Your task to perform on an android device: turn off notifications in google photos Image 0: 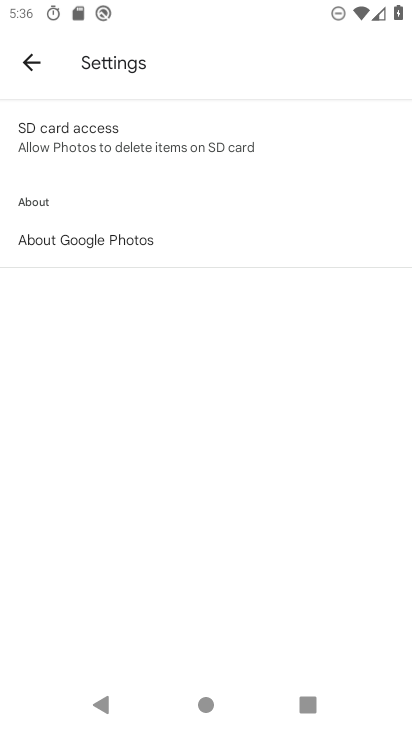
Step 0: press home button
Your task to perform on an android device: turn off notifications in google photos Image 1: 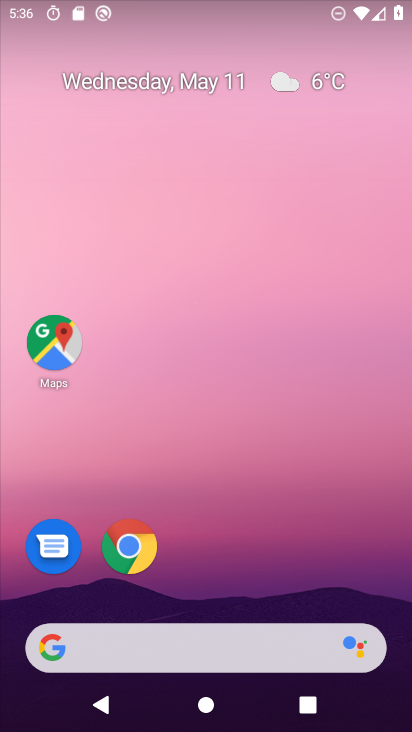
Step 1: drag from (195, 618) to (195, 337)
Your task to perform on an android device: turn off notifications in google photos Image 2: 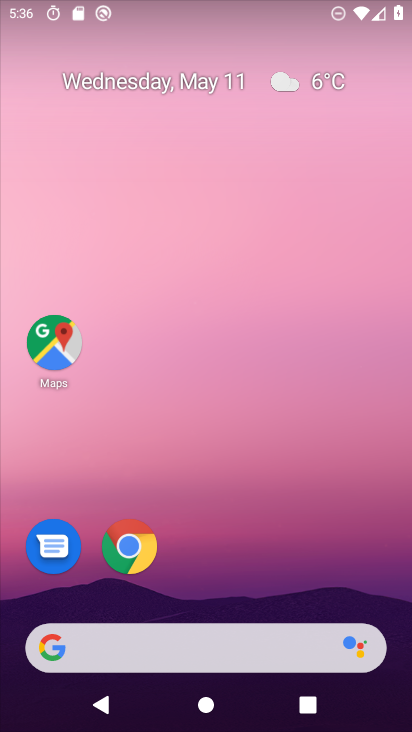
Step 2: drag from (239, 503) to (292, 171)
Your task to perform on an android device: turn off notifications in google photos Image 3: 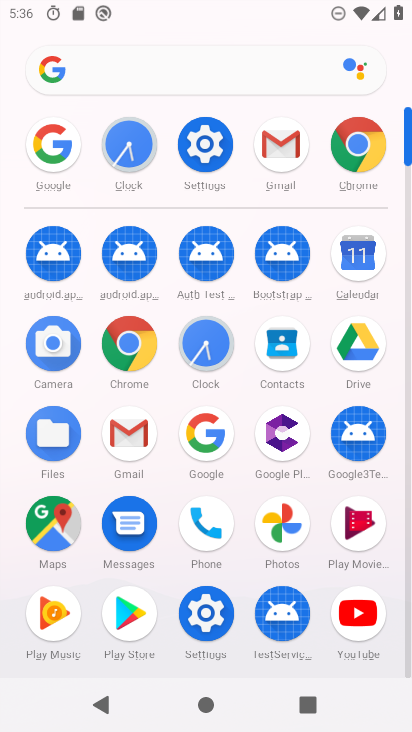
Step 3: click (304, 527)
Your task to perform on an android device: turn off notifications in google photos Image 4: 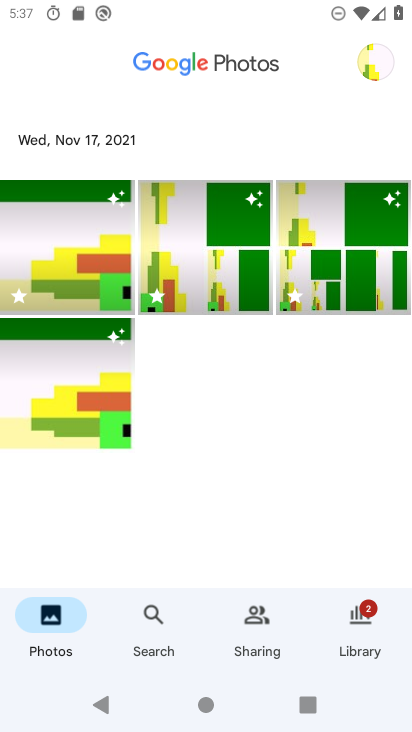
Step 4: click (362, 70)
Your task to perform on an android device: turn off notifications in google photos Image 5: 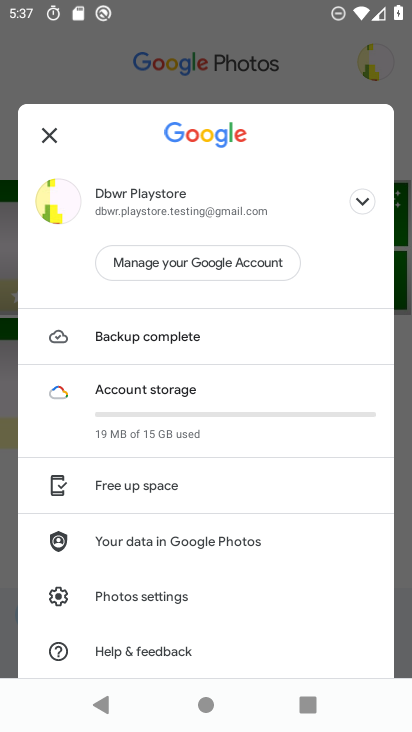
Step 5: click (151, 601)
Your task to perform on an android device: turn off notifications in google photos Image 6: 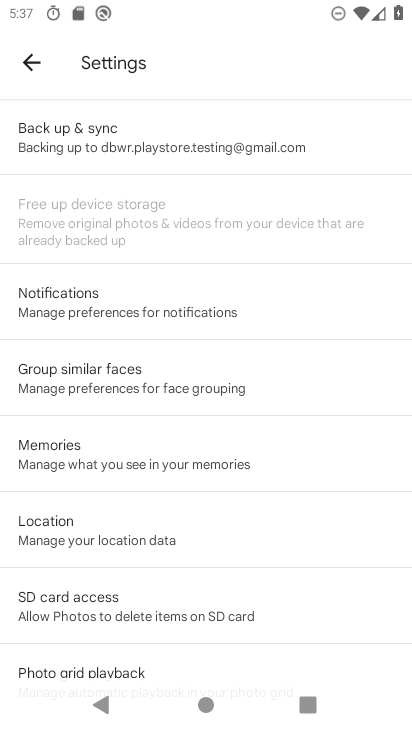
Step 6: click (84, 307)
Your task to perform on an android device: turn off notifications in google photos Image 7: 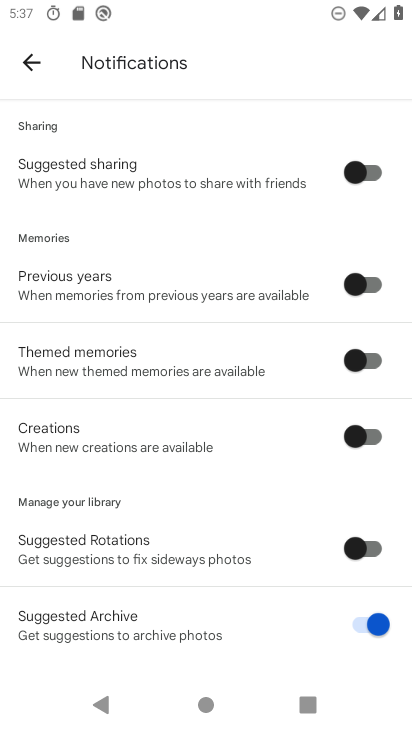
Step 7: click (374, 165)
Your task to perform on an android device: turn off notifications in google photos Image 8: 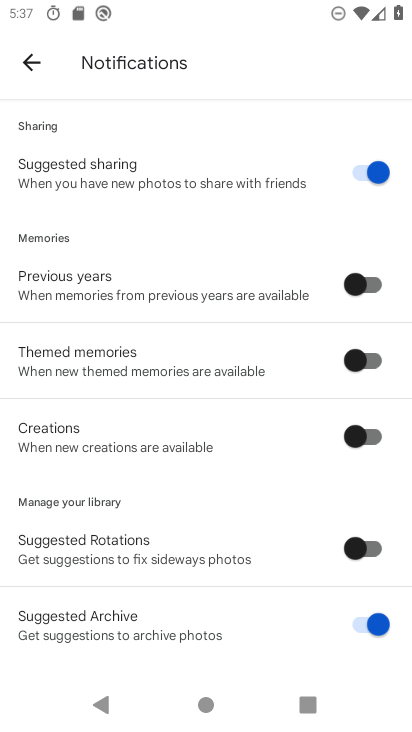
Step 8: task complete